Your task to perform on an android device: turn on airplane mode Image 0: 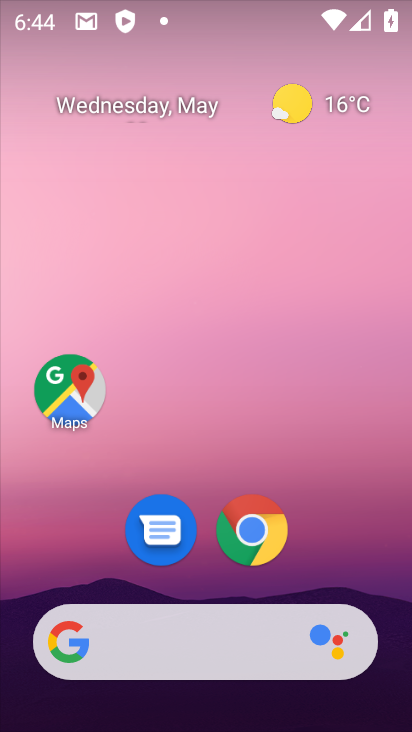
Step 0: drag from (230, 533) to (297, 170)
Your task to perform on an android device: turn on airplane mode Image 1: 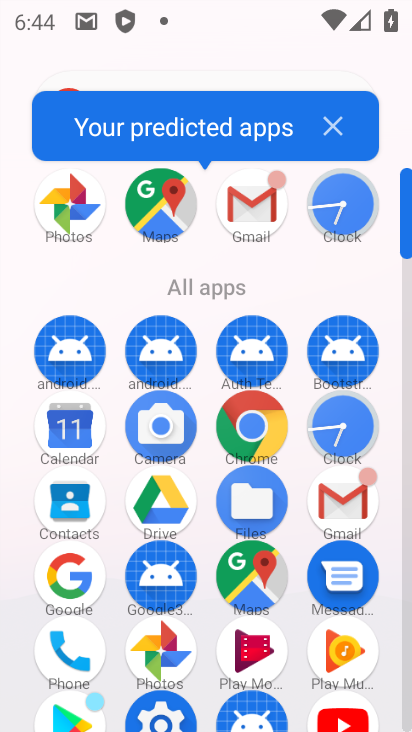
Step 1: drag from (207, 600) to (231, 395)
Your task to perform on an android device: turn on airplane mode Image 2: 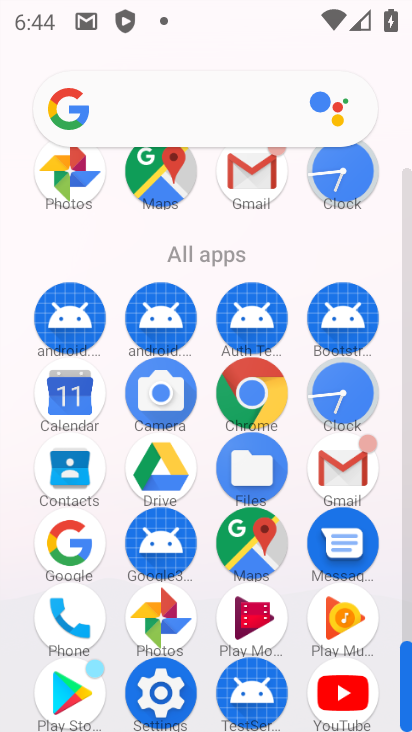
Step 2: click (173, 669)
Your task to perform on an android device: turn on airplane mode Image 3: 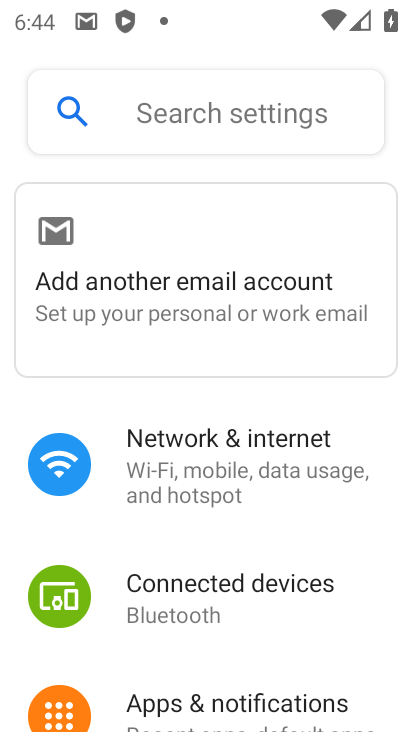
Step 3: click (201, 494)
Your task to perform on an android device: turn on airplane mode Image 4: 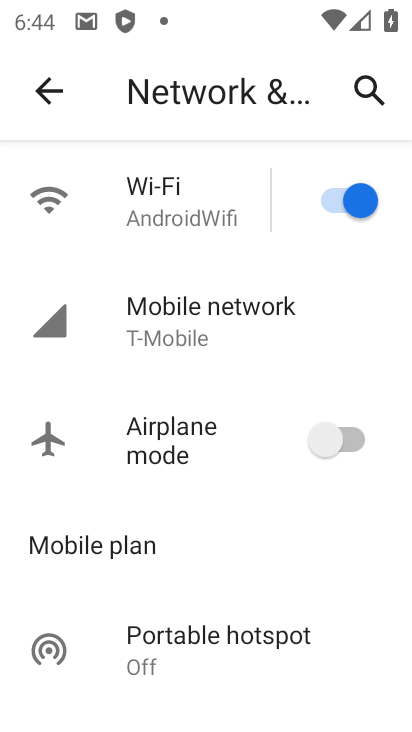
Step 4: click (340, 440)
Your task to perform on an android device: turn on airplane mode Image 5: 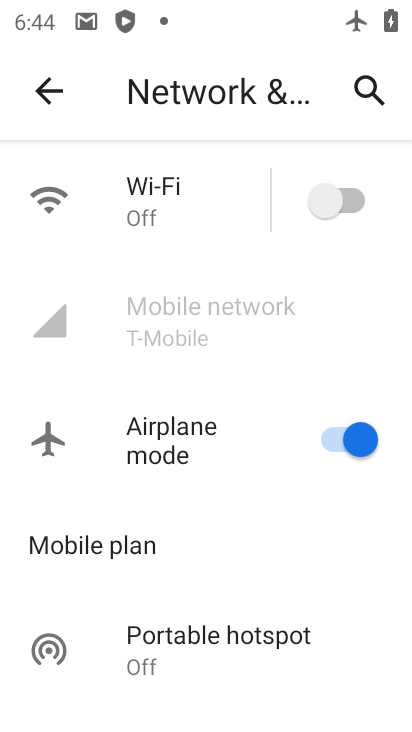
Step 5: task complete